Your task to perform on an android device: turn pop-ups off in chrome Image 0: 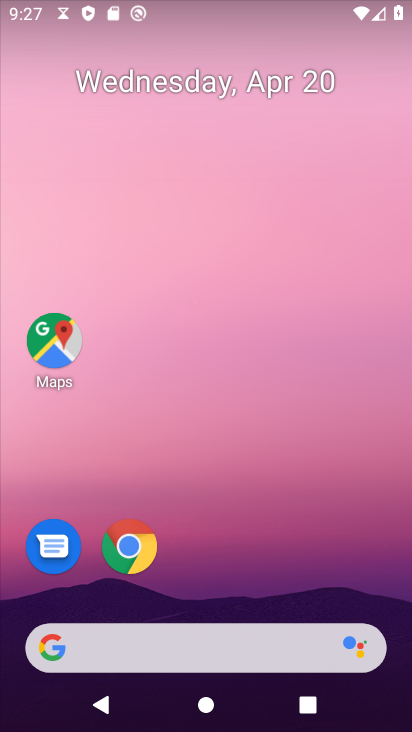
Step 0: click (136, 552)
Your task to perform on an android device: turn pop-ups off in chrome Image 1: 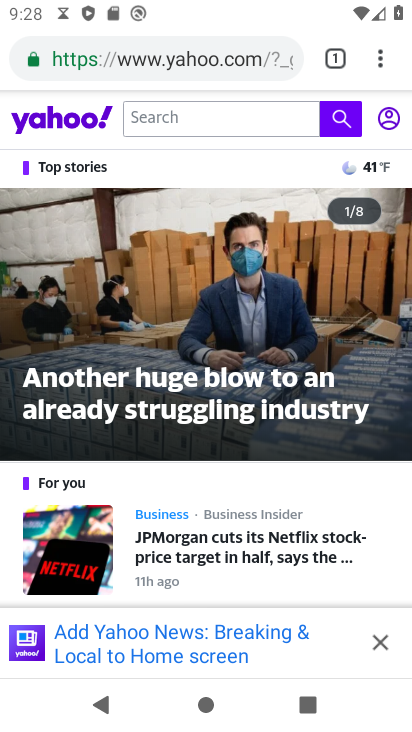
Step 1: click (373, 52)
Your task to perform on an android device: turn pop-ups off in chrome Image 2: 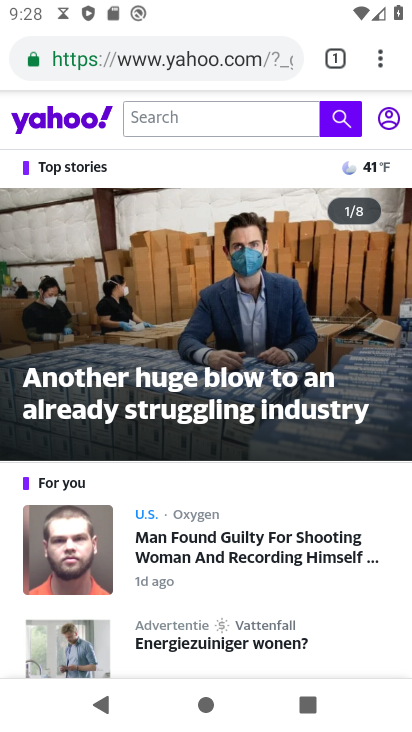
Step 2: click (376, 57)
Your task to perform on an android device: turn pop-ups off in chrome Image 3: 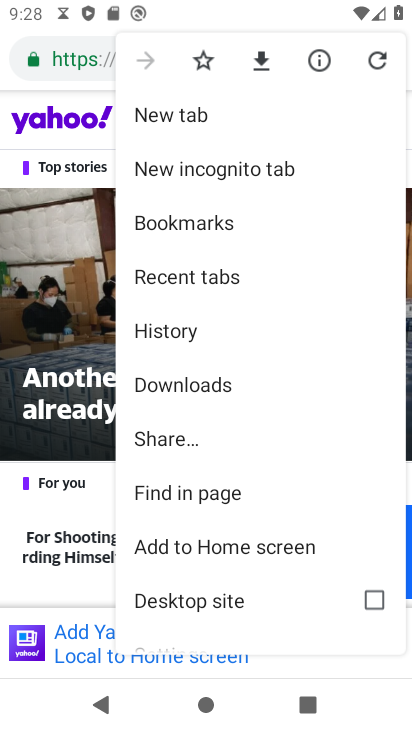
Step 3: drag from (237, 568) to (286, 190)
Your task to perform on an android device: turn pop-ups off in chrome Image 4: 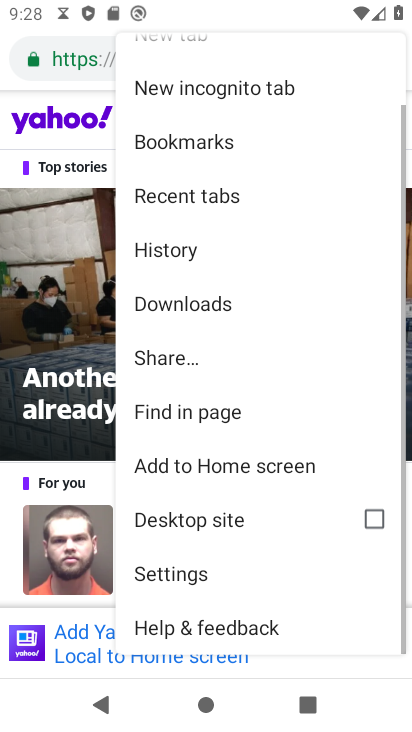
Step 4: click (215, 573)
Your task to perform on an android device: turn pop-ups off in chrome Image 5: 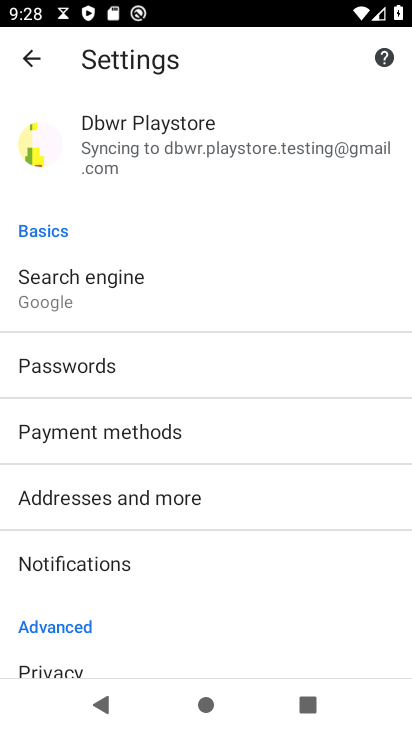
Step 5: drag from (184, 599) to (180, 193)
Your task to perform on an android device: turn pop-ups off in chrome Image 6: 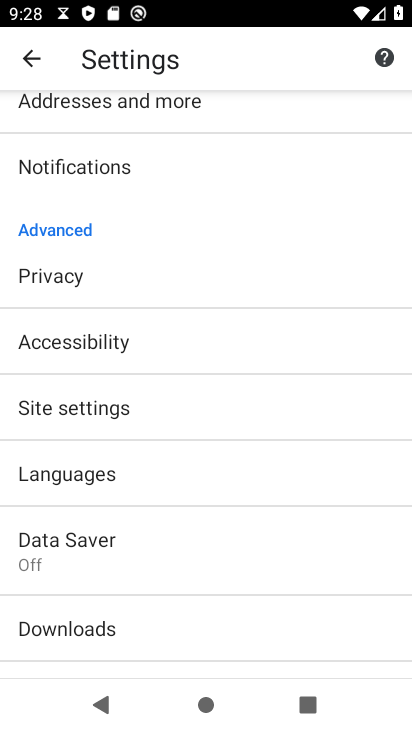
Step 6: drag from (179, 583) to (209, 214)
Your task to perform on an android device: turn pop-ups off in chrome Image 7: 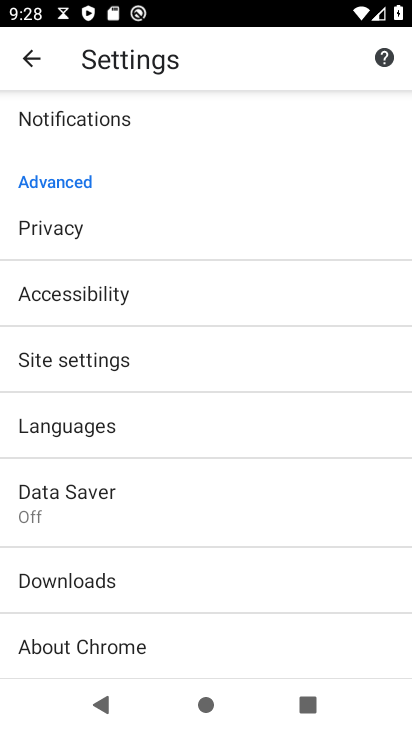
Step 7: click (150, 369)
Your task to perform on an android device: turn pop-ups off in chrome Image 8: 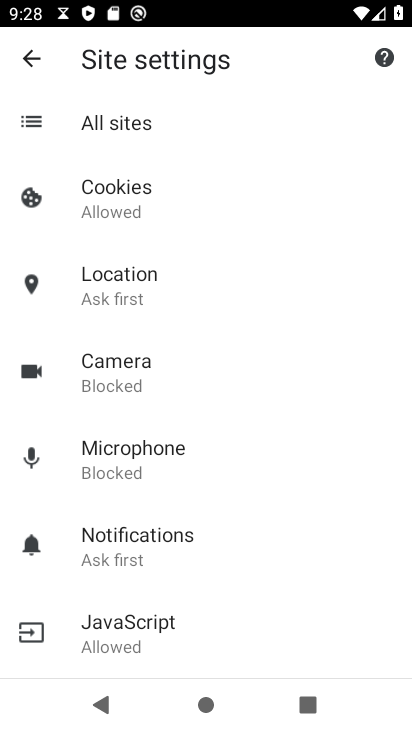
Step 8: drag from (209, 506) to (204, 212)
Your task to perform on an android device: turn pop-ups off in chrome Image 9: 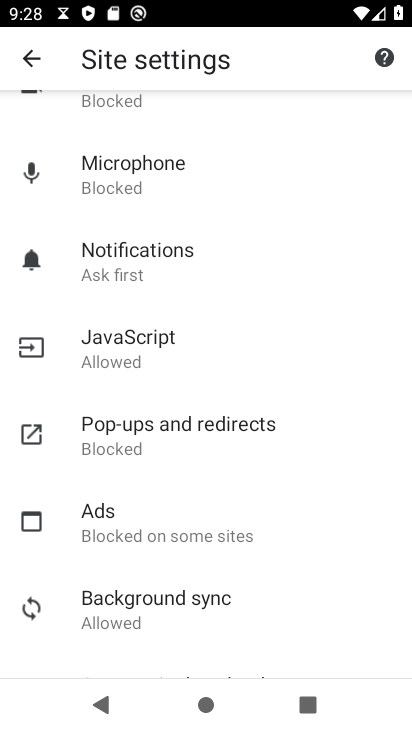
Step 9: click (199, 450)
Your task to perform on an android device: turn pop-ups off in chrome Image 10: 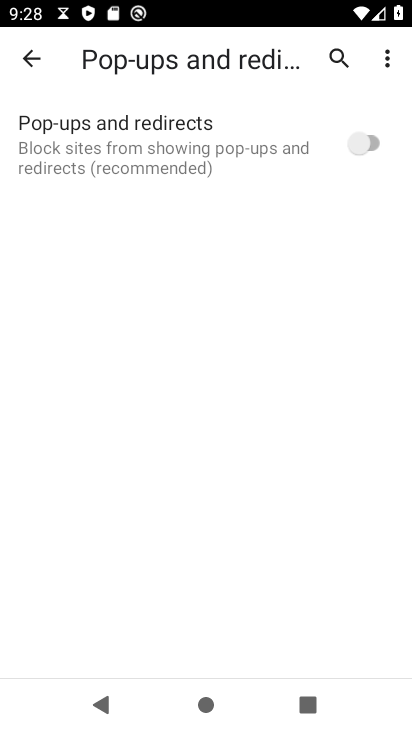
Step 10: task complete